Your task to perform on an android device: Open Android settings Image 0: 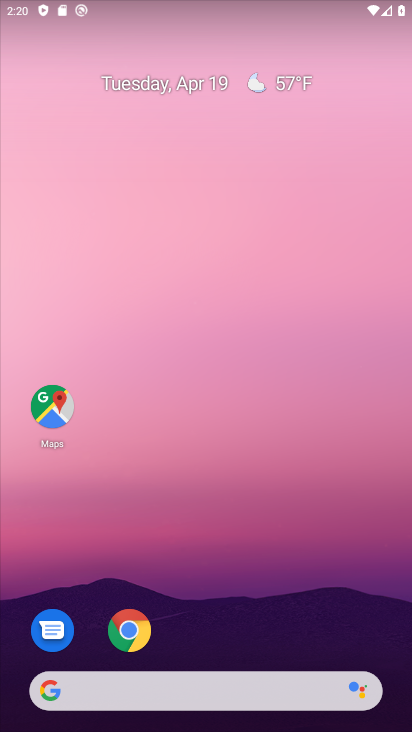
Step 0: drag from (197, 618) to (205, 61)
Your task to perform on an android device: Open Android settings Image 1: 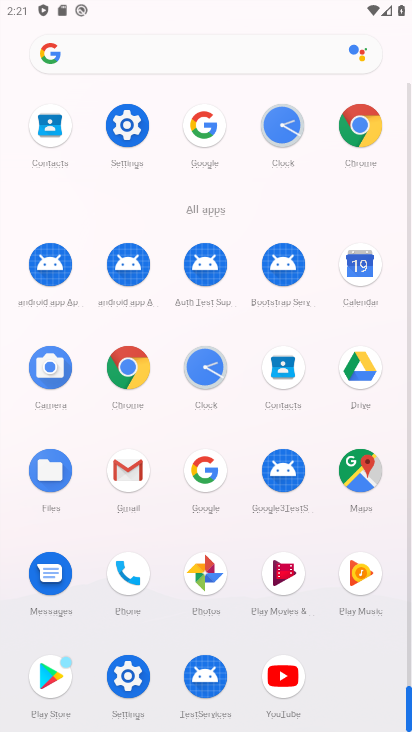
Step 1: click (125, 686)
Your task to perform on an android device: Open Android settings Image 2: 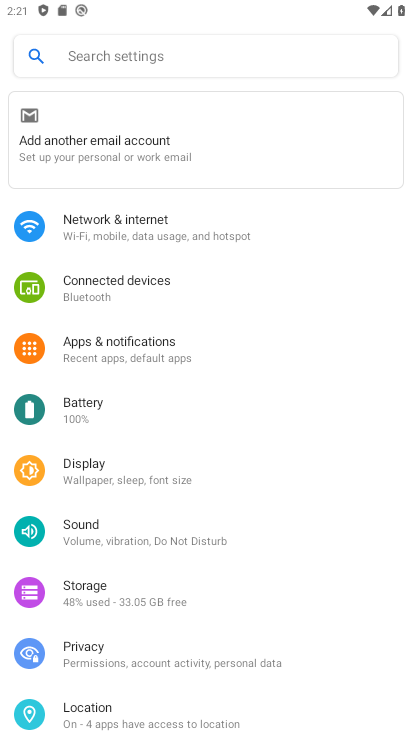
Step 2: drag from (172, 617) to (186, 328)
Your task to perform on an android device: Open Android settings Image 3: 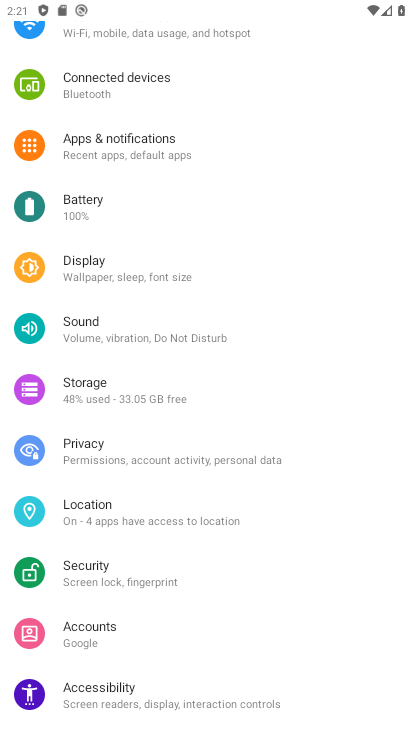
Step 3: drag from (195, 637) to (207, 325)
Your task to perform on an android device: Open Android settings Image 4: 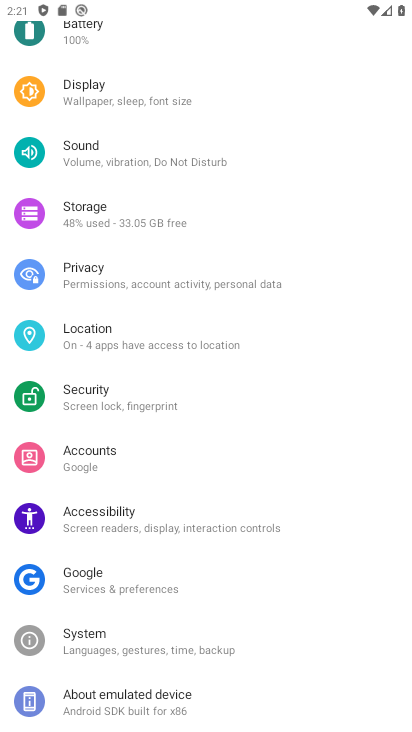
Step 4: click (161, 691)
Your task to perform on an android device: Open Android settings Image 5: 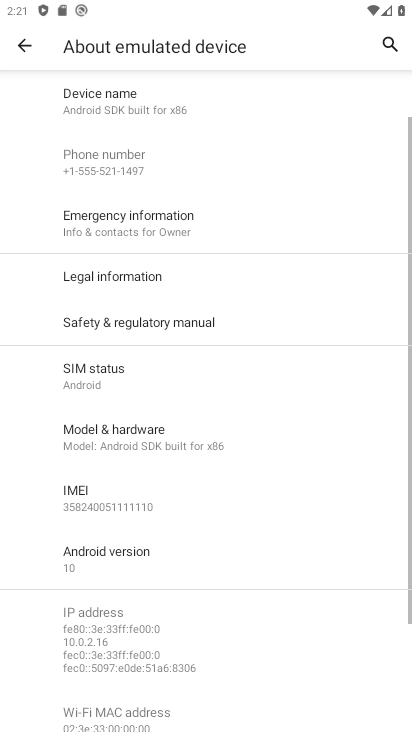
Step 5: click (154, 551)
Your task to perform on an android device: Open Android settings Image 6: 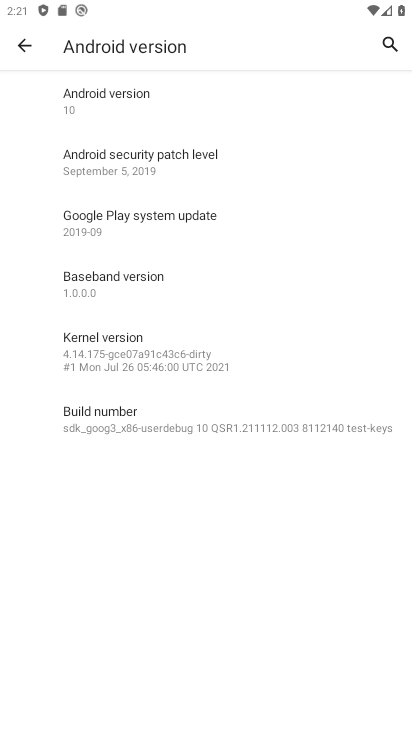
Step 6: task complete